Your task to perform on an android device: Search for Italian restaurants on Maps Image 0: 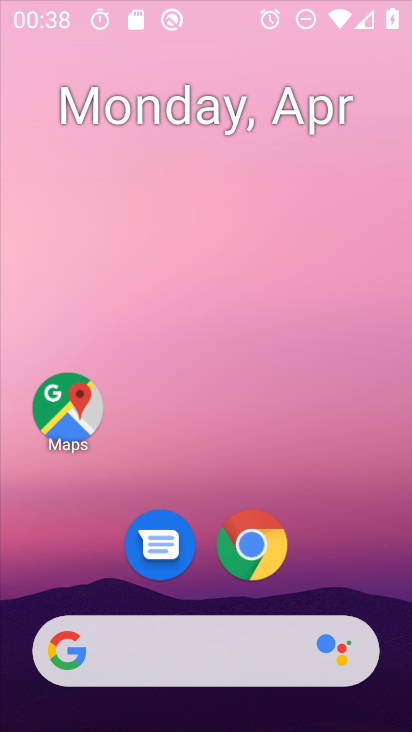
Step 0: drag from (332, 568) to (296, 242)
Your task to perform on an android device: Search for Italian restaurants on Maps Image 1: 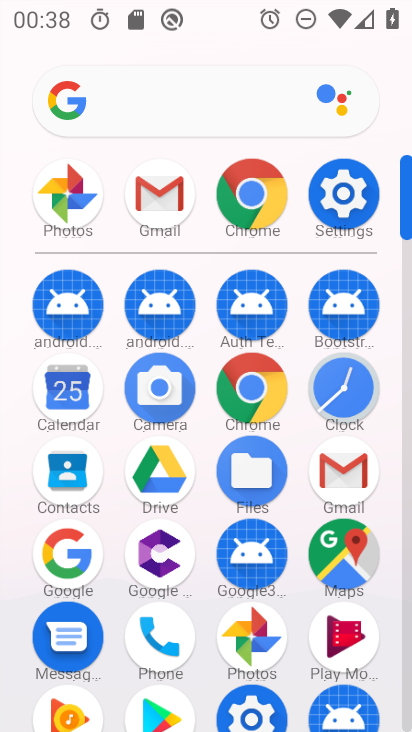
Step 1: click (341, 564)
Your task to perform on an android device: Search for Italian restaurants on Maps Image 2: 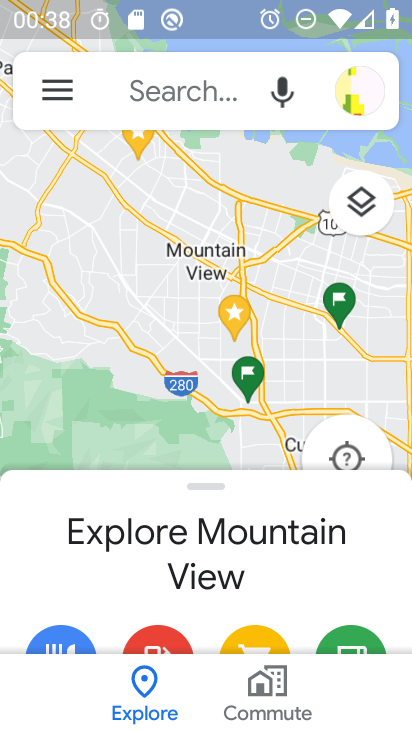
Step 2: click (216, 98)
Your task to perform on an android device: Search for Italian restaurants on Maps Image 3: 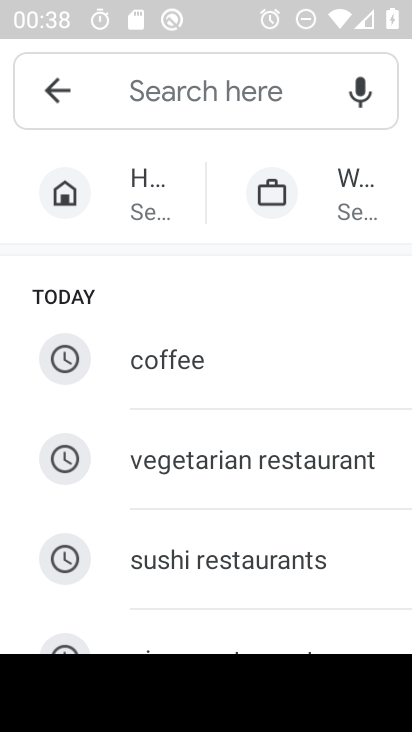
Step 3: click (159, 83)
Your task to perform on an android device: Search for Italian restaurants on Maps Image 4: 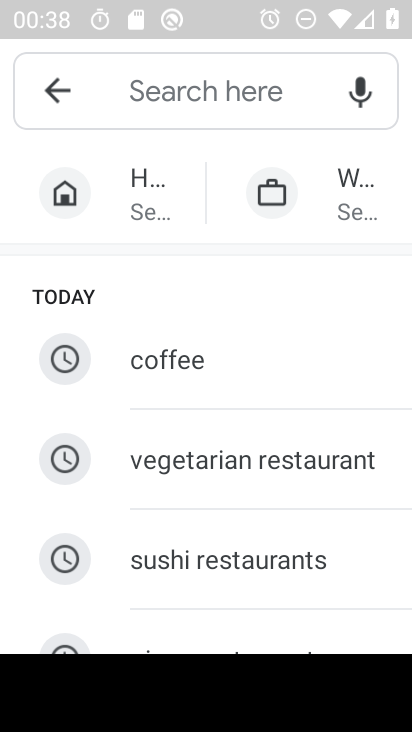
Step 4: type "Italian restaurants "
Your task to perform on an android device: Search for Italian restaurants on Maps Image 5: 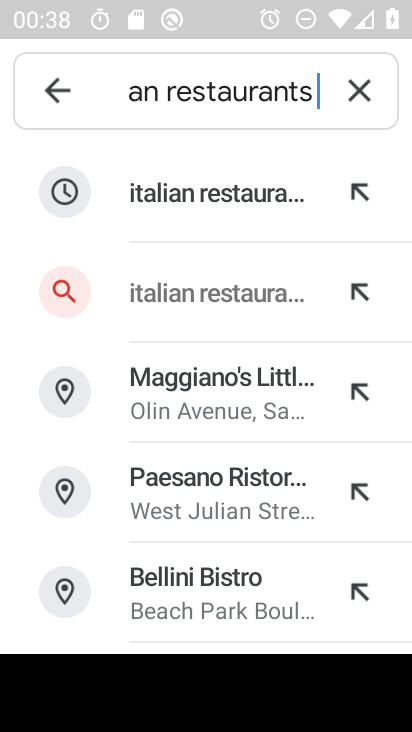
Step 5: click (202, 189)
Your task to perform on an android device: Search for Italian restaurants on Maps Image 6: 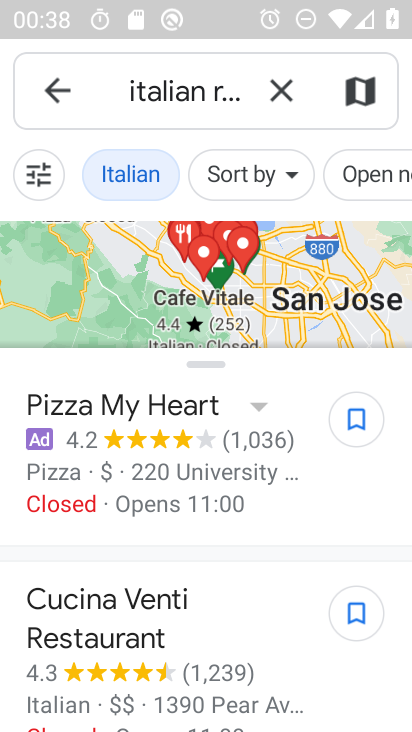
Step 6: click (180, 490)
Your task to perform on an android device: Search for Italian restaurants on Maps Image 7: 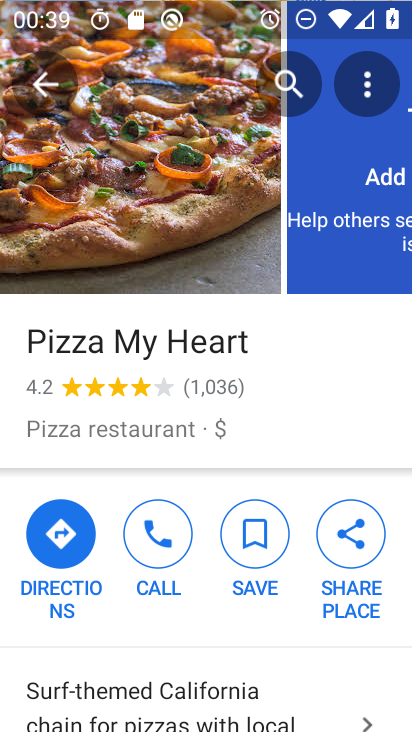
Step 7: task complete